Your task to perform on an android device: Is it going to rain tomorrow? Image 0: 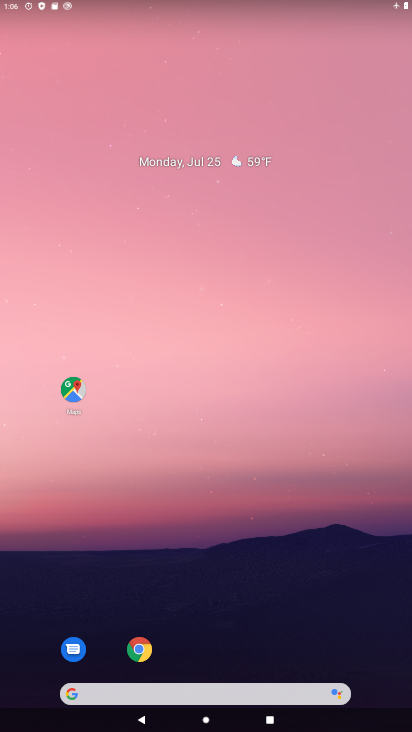
Step 0: drag from (195, 693) to (209, 43)
Your task to perform on an android device: Is it going to rain tomorrow? Image 1: 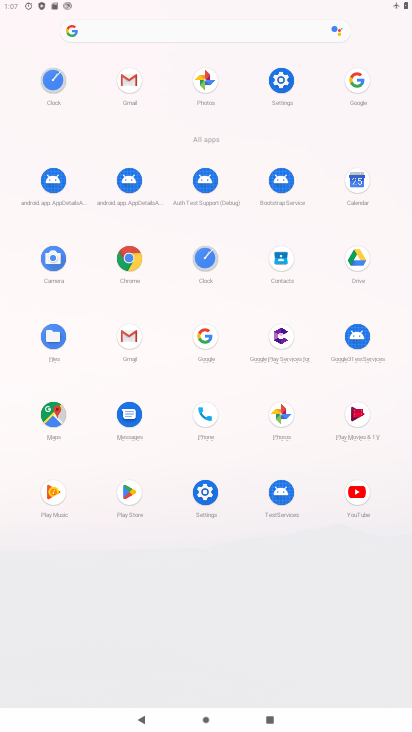
Step 1: click (356, 78)
Your task to perform on an android device: Is it going to rain tomorrow? Image 2: 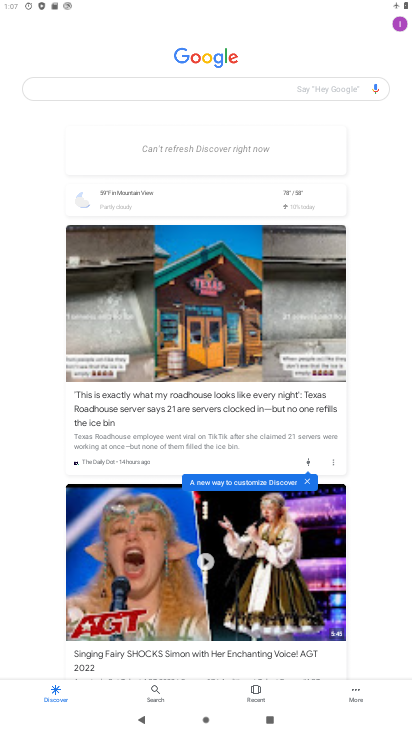
Step 2: click (316, 88)
Your task to perform on an android device: Is it going to rain tomorrow? Image 3: 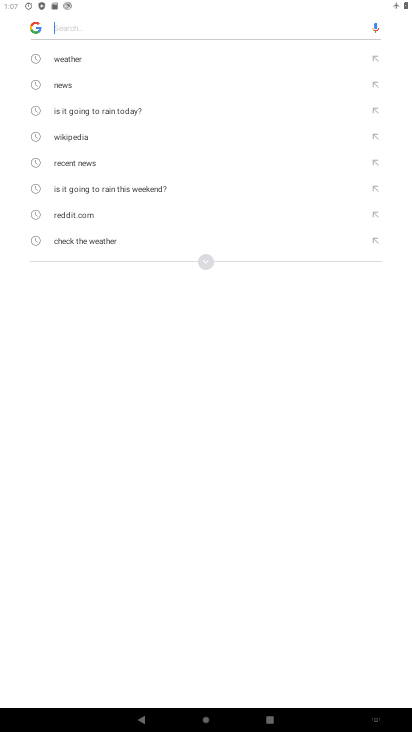
Step 3: type "Is it going to rain tomorrow?"
Your task to perform on an android device: Is it going to rain tomorrow? Image 4: 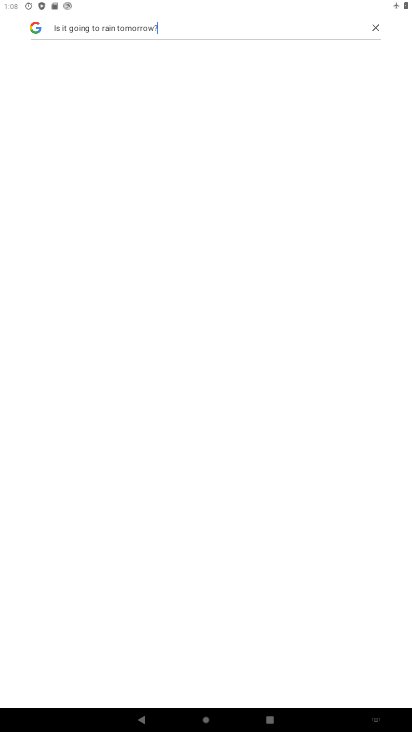
Step 4: task complete